Your task to perform on an android device: check storage Image 0: 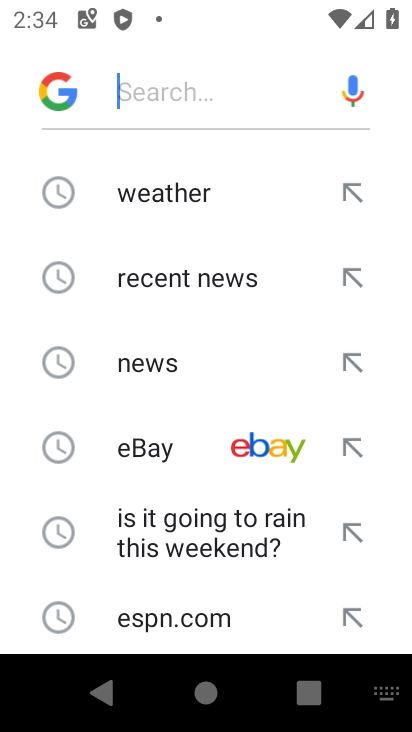
Step 0: press back button
Your task to perform on an android device: check storage Image 1: 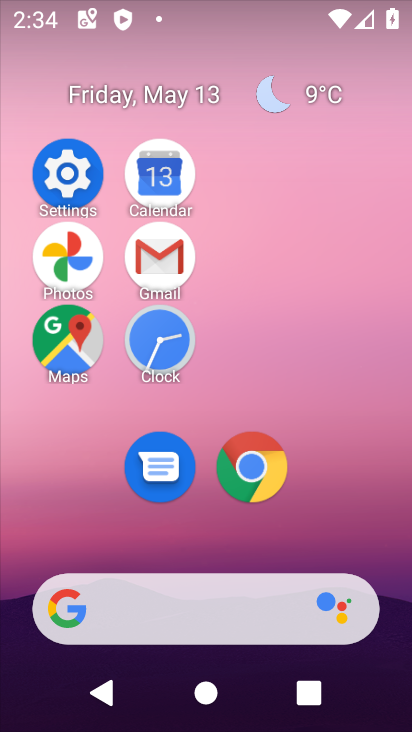
Step 1: click (79, 175)
Your task to perform on an android device: check storage Image 2: 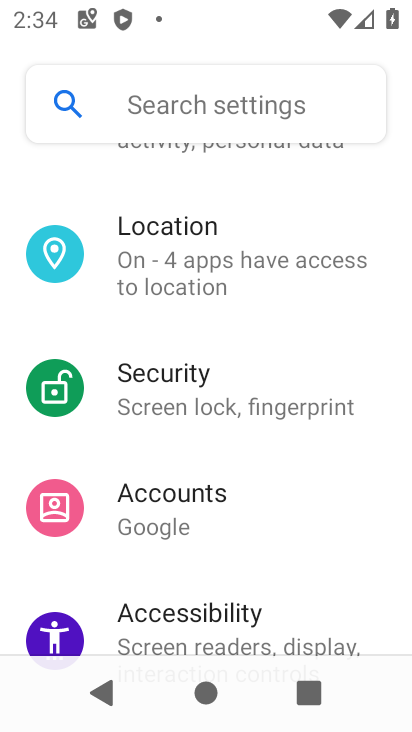
Step 2: drag from (291, 543) to (316, 680)
Your task to perform on an android device: check storage Image 3: 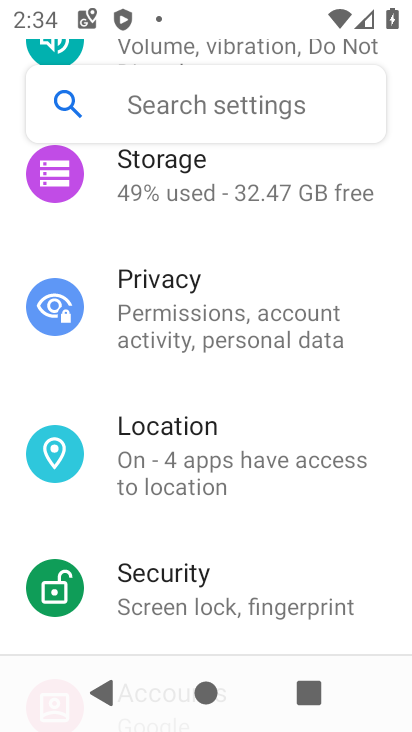
Step 3: click (274, 194)
Your task to perform on an android device: check storage Image 4: 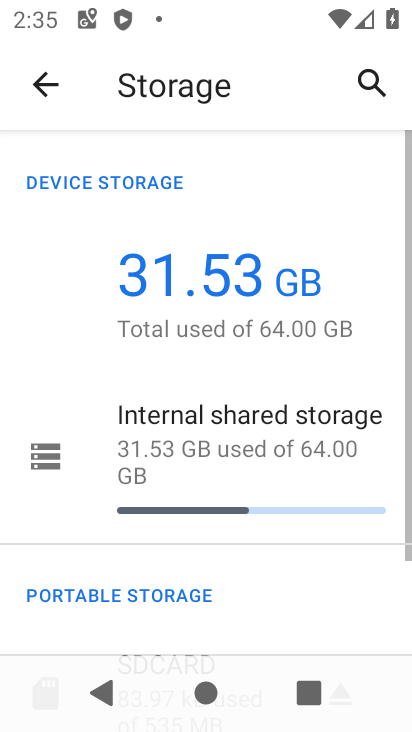
Step 4: task complete